Your task to perform on an android device: Open ESPN.com Image 0: 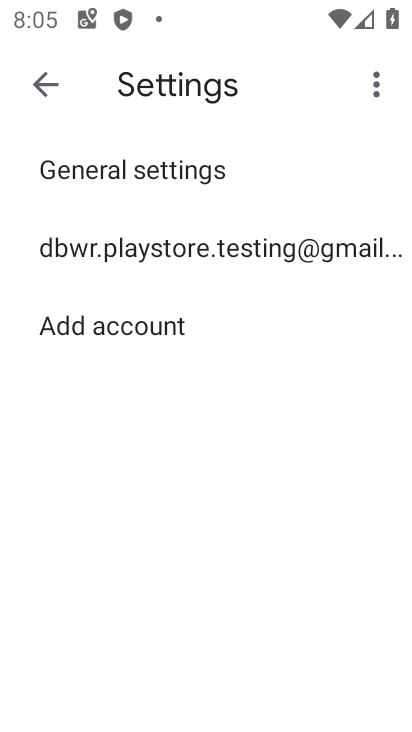
Step 0: press home button
Your task to perform on an android device: Open ESPN.com Image 1: 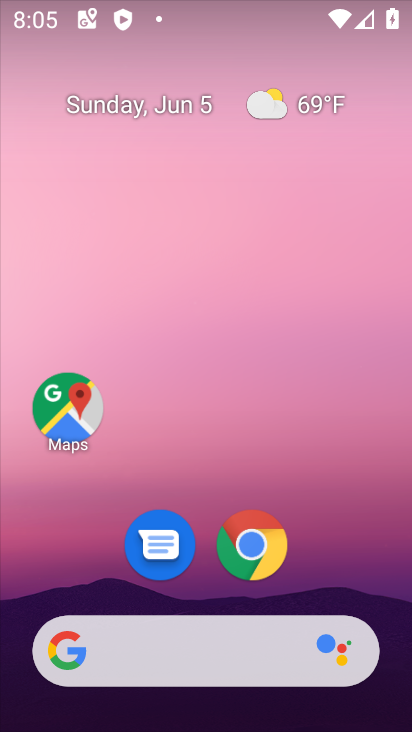
Step 1: drag from (373, 597) to (389, 236)
Your task to perform on an android device: Open ESPN.com Image 2: 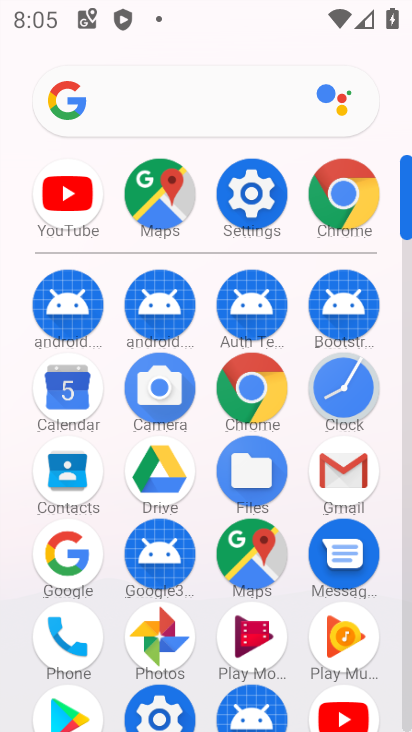
Step 2: click (269, 389)
Your task to perform on an android device: Open ESPN.com Image 3: 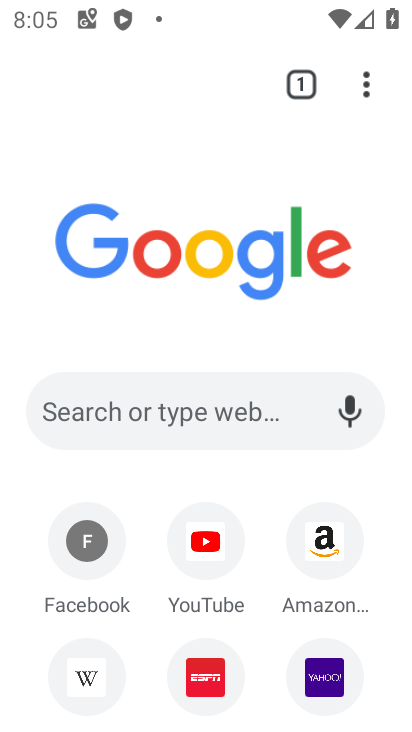
Step 3: click (243, 409)
Your task to perform on an android device: Open ESPN.com Image 4: 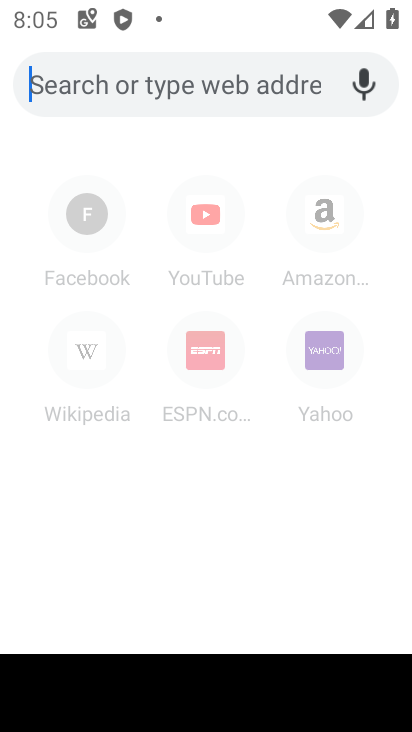
Step 4: type "espn.com"
Your task to perform on an android device: Open ESPN.com Image 5: 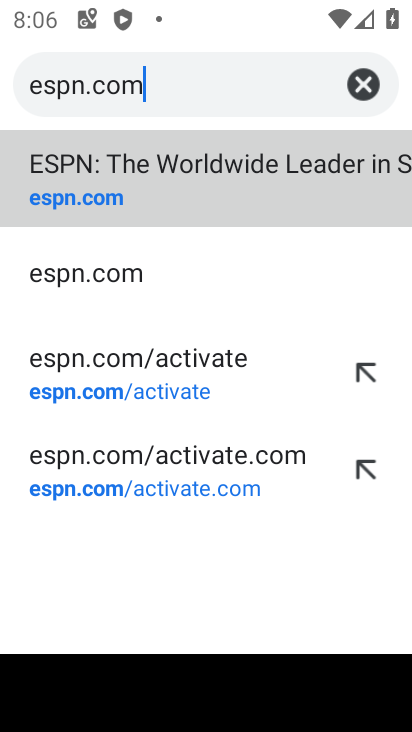
Step 5: click (138, 180)
Your task to perform on an android device: Open ESPN.com Image 6: 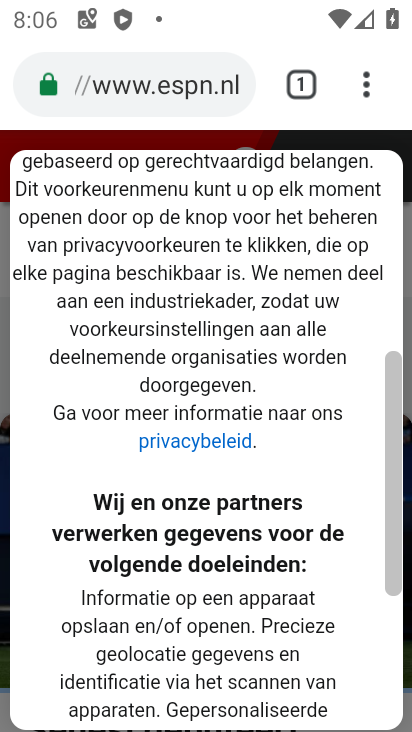
Step 6: task complete